Your task to perform on an android device: Open Yahoo.com Image 0: 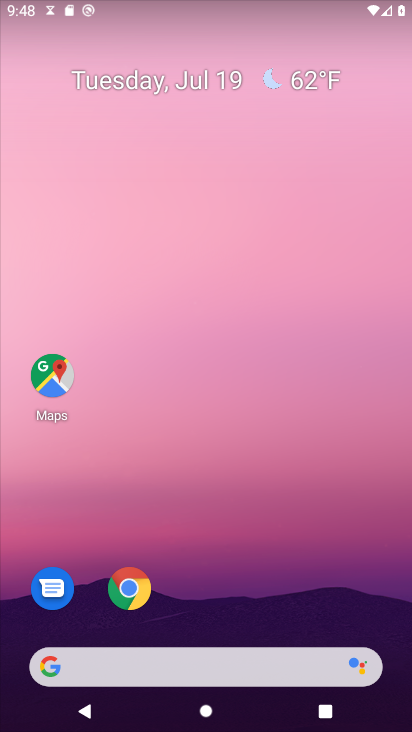
Step 0: click (131, 587)
Your task to perform on an android device: Open Yahoo.com Image 1: 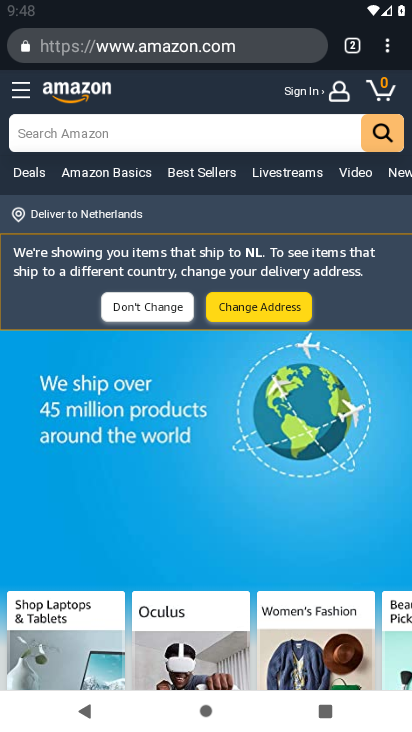
Step 1: click (176, 27)
Your task to perform on an android device: Open Yahoo.com Image 2: 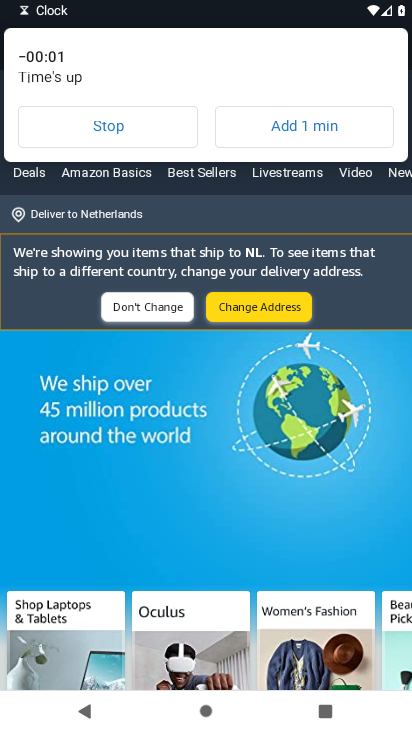
Step 2: click (159, 44)
Your task to perform on an android device: Open Yahoo.com Image 3: 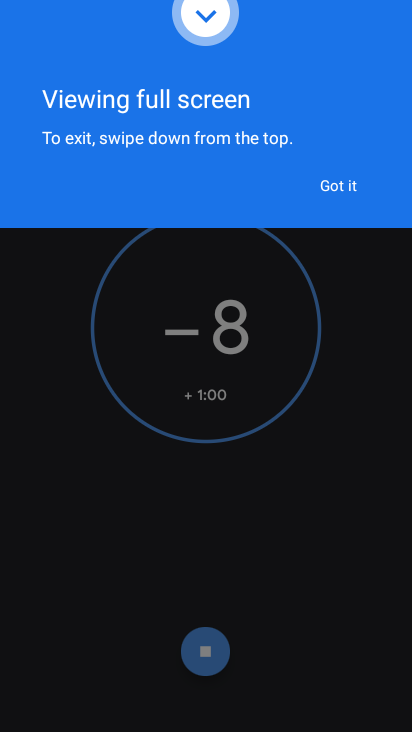
Step 3: click (340, 181)
Your task to perform on an android device: Open Yahoo.com Image 4: 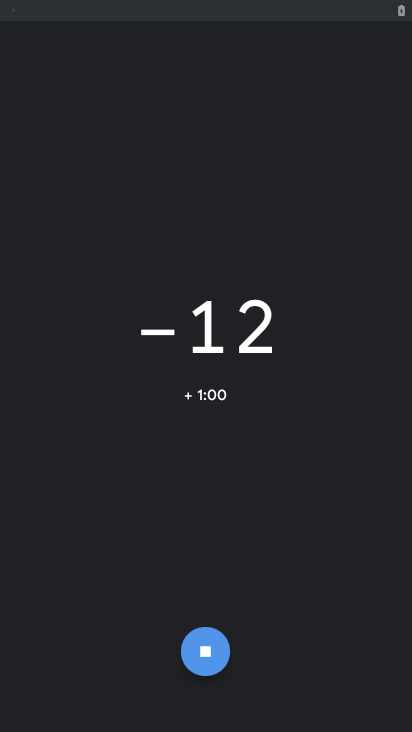
Step 4: click (202, 642)
Your task to perform on an android device: Open Yahoo.com Image 5: 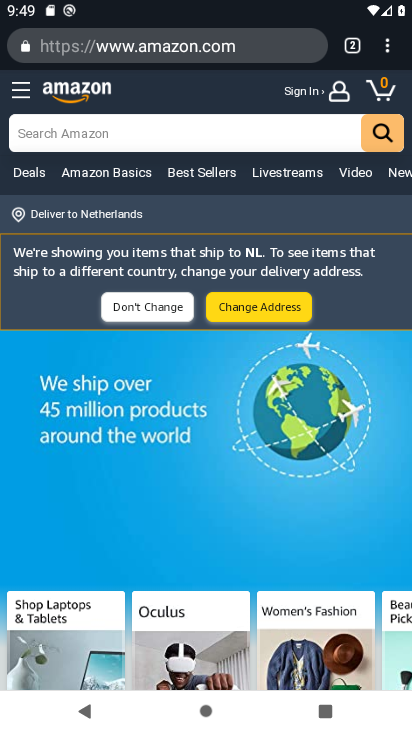
Step 5: click (153, 40)
Your task to perform on an android device: Open Yahoo.com Image 6: 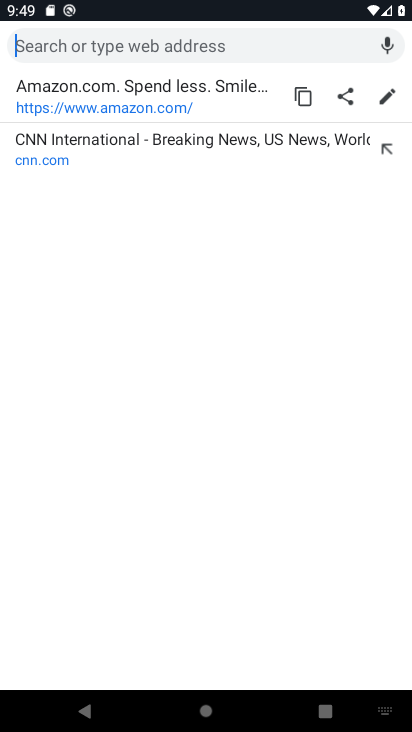
Step 6: type "www.yahoo.com"
Your task to perform on an android device: Open Yahoo.com Image 7: 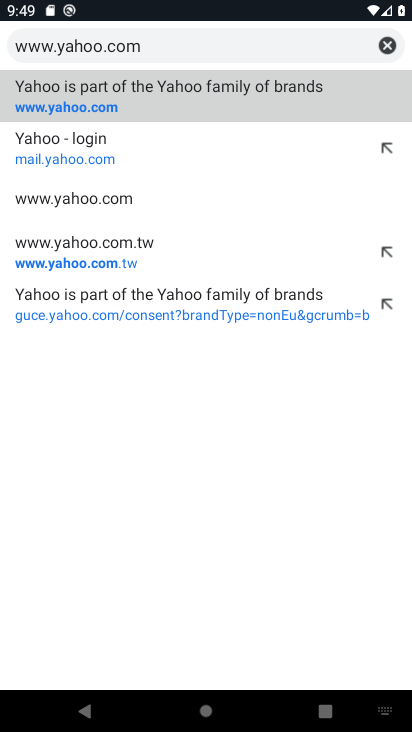
Step 7: click (65, 101)
Your task to perform on an android device: Open Yahoo.com Image 8: 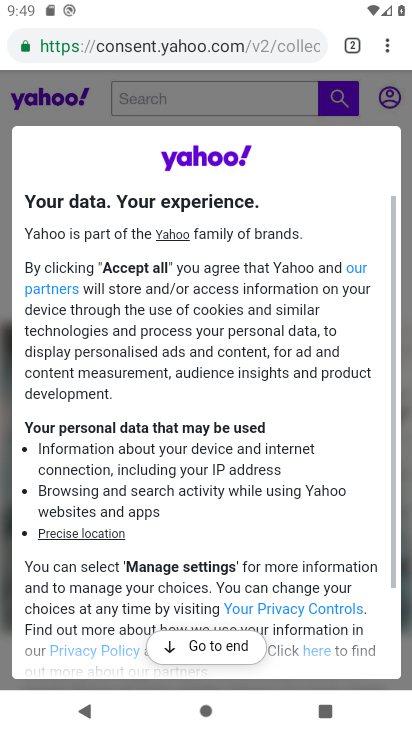
Step 8: task complete